Your task to perform on an android device: Go to Wikipedia Image 0: 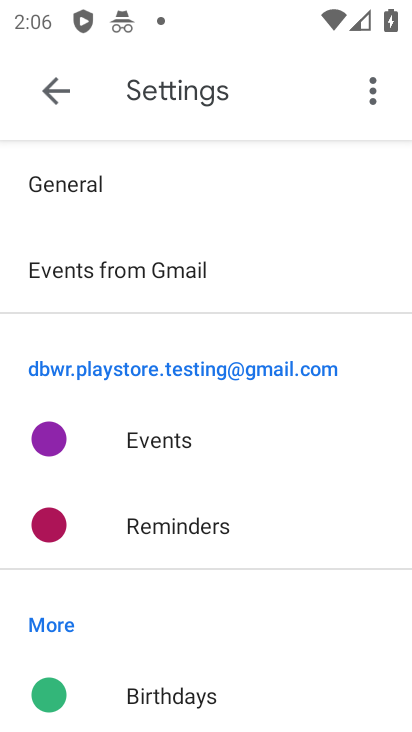
Step 0: press home button
Your task to perform on an android device: Go to Wikipedia Image 1: 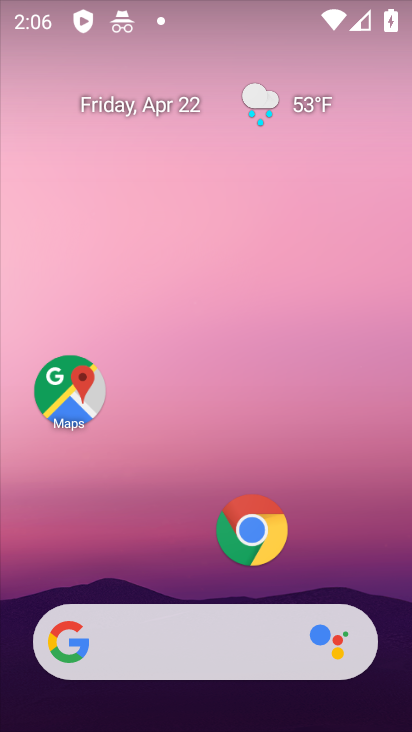
Step 1: drag from (216, 614) to (177, 293)
Your task to perform on an android device: Go to Wikipedia Image 2: 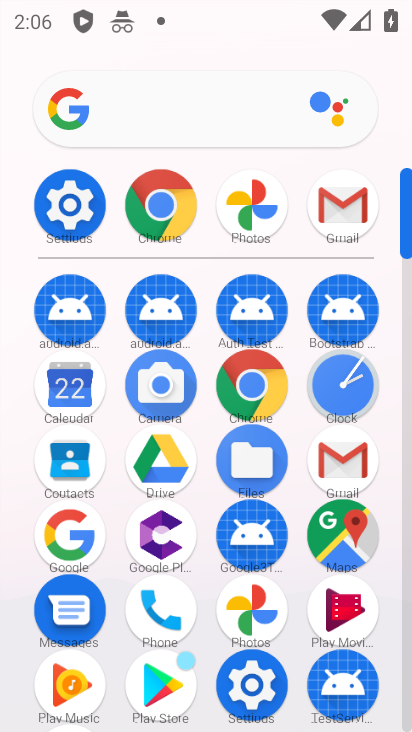
Step 2: click (144, 206)
Your task to perform on an android device: Go to Wikipedia Image 3: 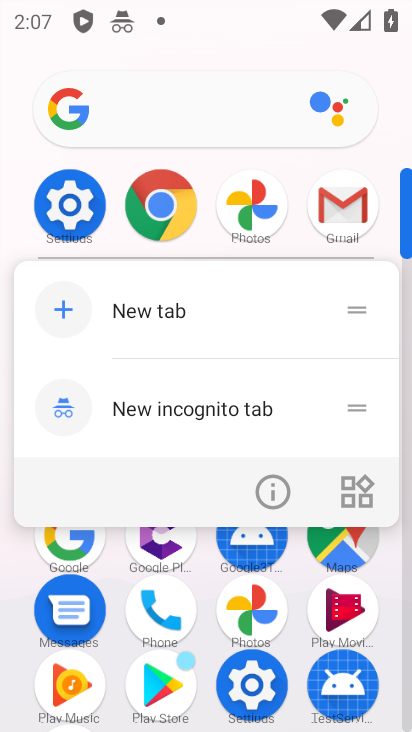
Step 3: click (154, 197)
Your task to perform on an android device: Go to Wikipedia Image 4: 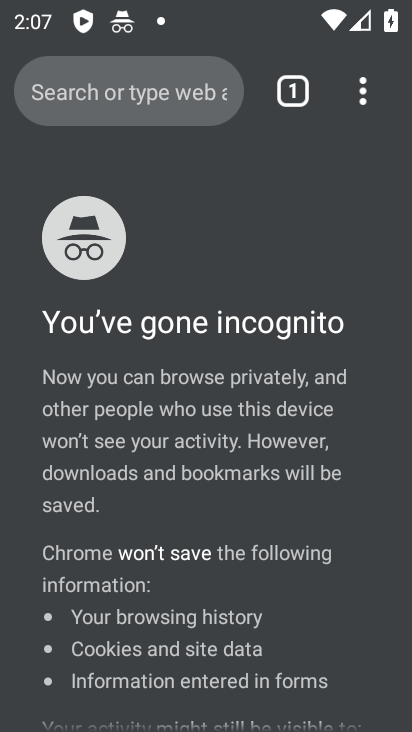
Step 4: click (164, 123)
Your task to perform on an android device: Go to Wikipedia Image 5: 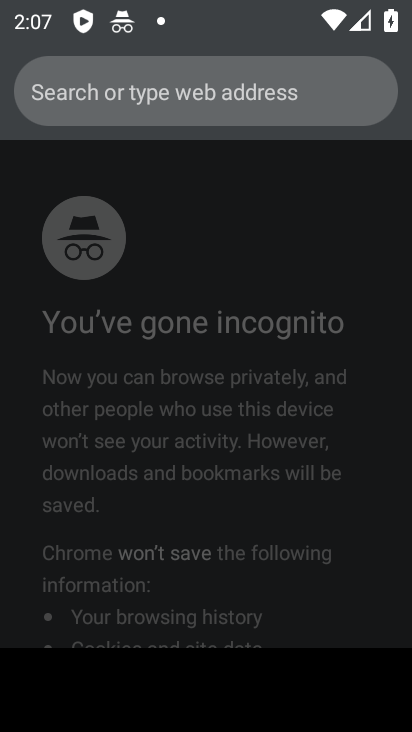
Step 5: type "wikipedia"
Your task to perform on an android device: Go to Wikipedia Image 6: 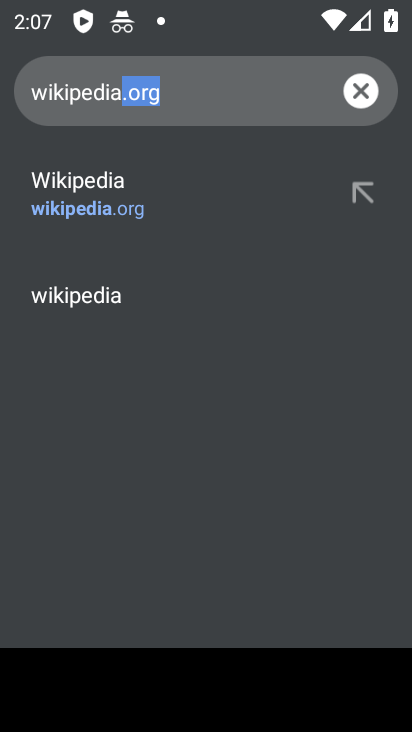
Step 6: click (182, 198)
Your task to perform on an android device: Go to Wikipedia Image 7: 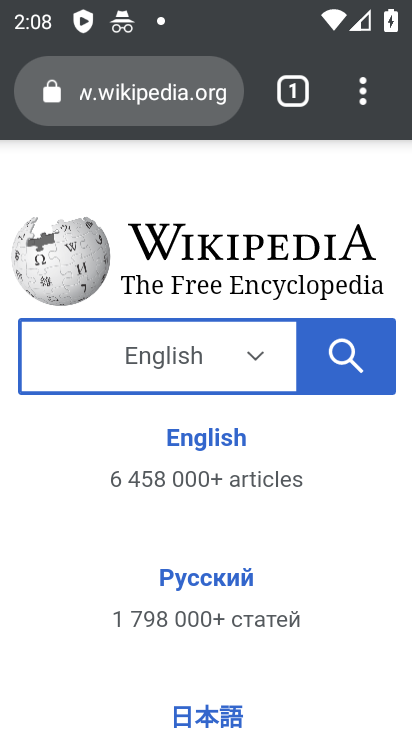
Step 7: task complete